Your task to perform on an android device: Open ESPN.com Image 0: 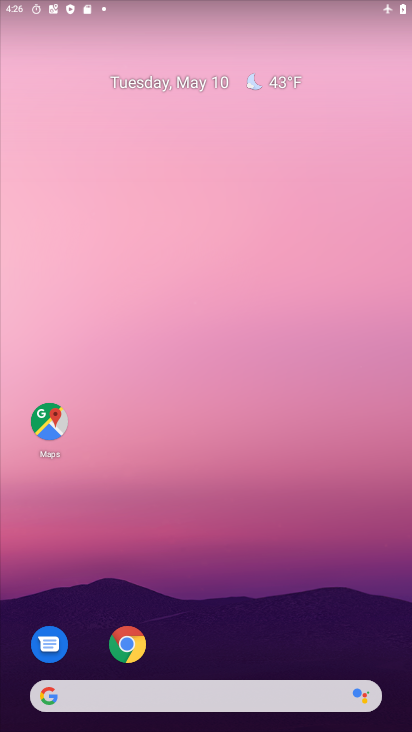
Step 0: drag from (197, 689) to (227, 323)
Your task to perform on an android device: Open ESPN.com Image 1: 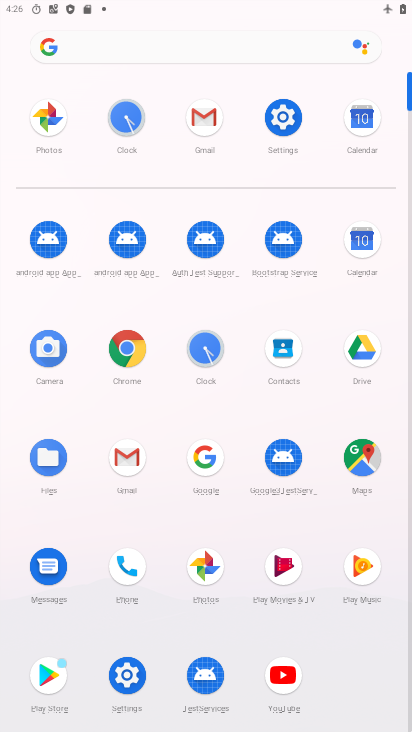
Step 1: click (116, 354)
Your task to perform on an android device: Open ESPN.com Image 2: 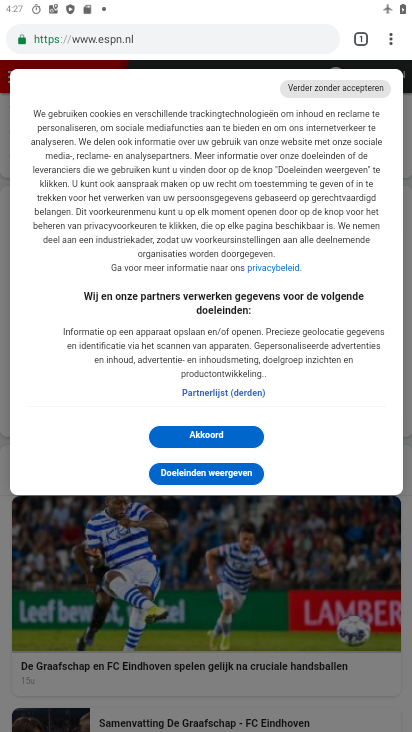
Step 2: task complete